Your task to perform on an android device: open the mobile data screen to see how much data has been used Image 0: 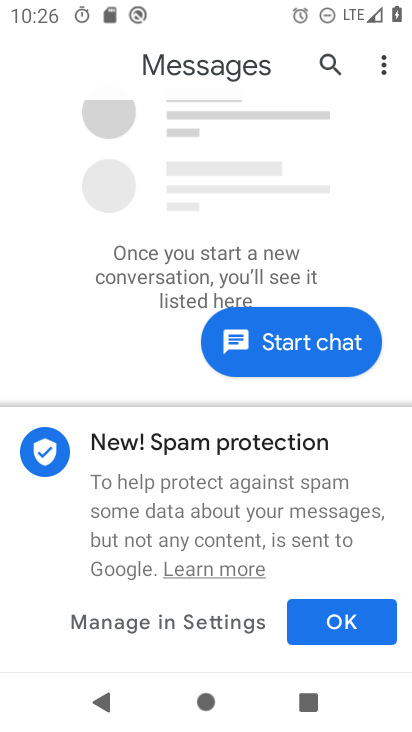
Step 0: press home button
Your task to perform on an android device: open the mobile data screen to see how much data has been used Image 1: 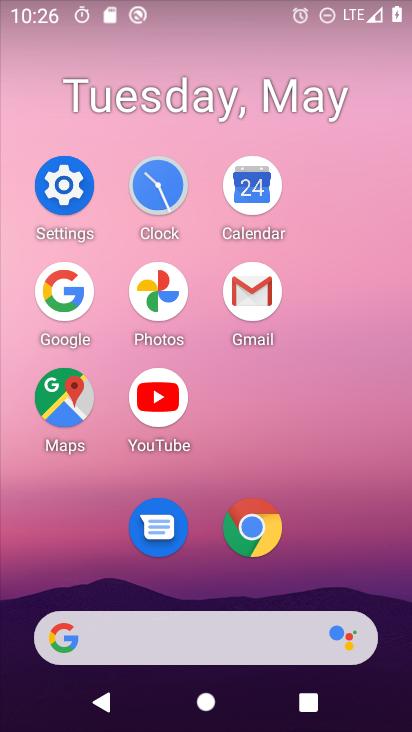
Step 1: click (82, 184)
Your task to perform on an android device: open the mobile data screen to see how much data has been used Image 2: 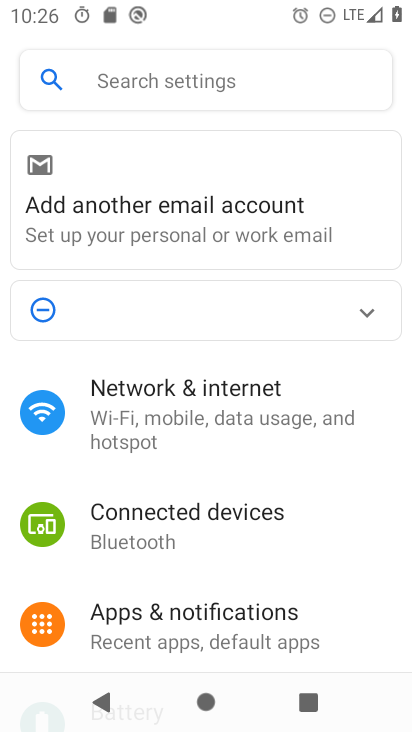
Step 2: drag from (314, 572) to (284, 264)
Your task to perform on an android device: open the mobile data screen to see how much data has been used Image 3: 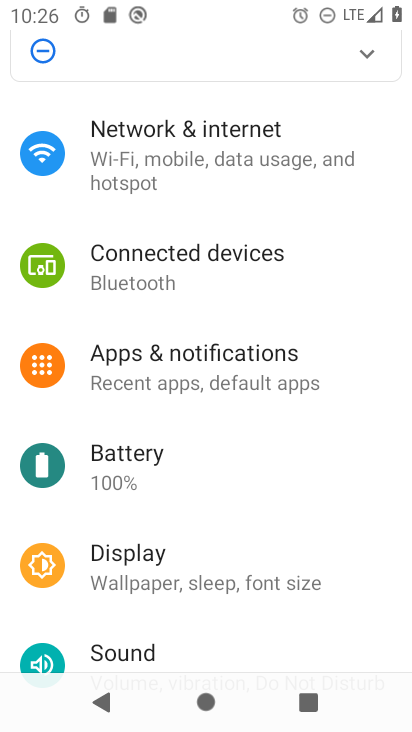
Step 3: click (238, 165)
Your task to perform on an android device: open the mobile data screen to see how much data has been used Image 4: 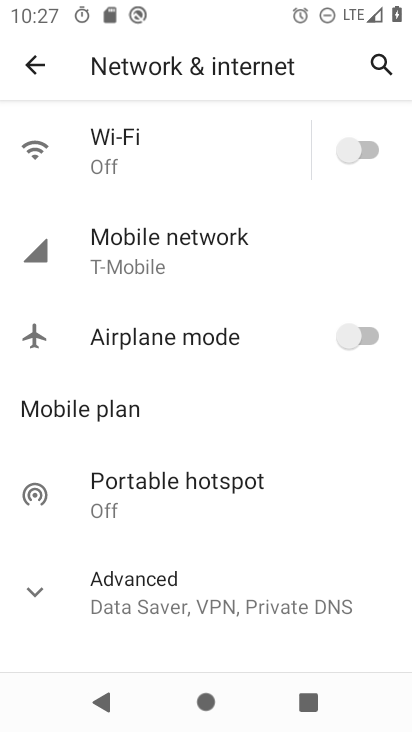
Step 4: click (221, 265)
Your task to perform on an android device: open the mobile data screen to see how much data has been used Image 5: 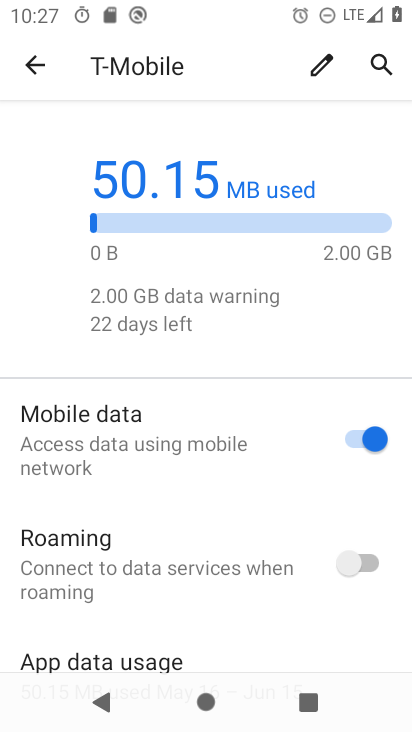
Step 5: task complete